Your task to perform on an android device: turn on the 24-hour format for clock Image 0: 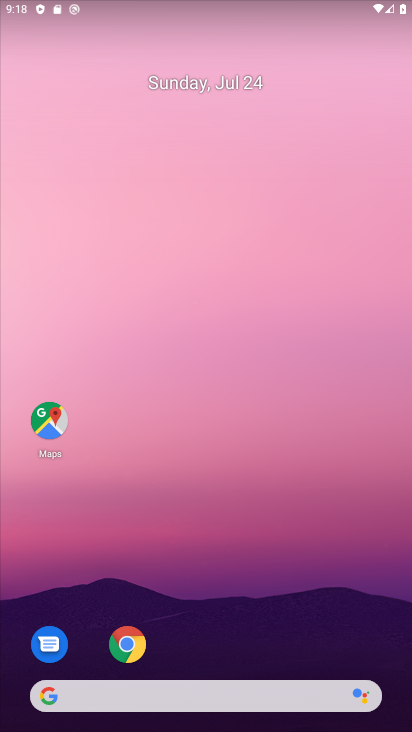
Step 0: drag from (379, 653) to (333, 142)
Your task to perform on an android device: turn on the 24-hour format for clock Image 1: 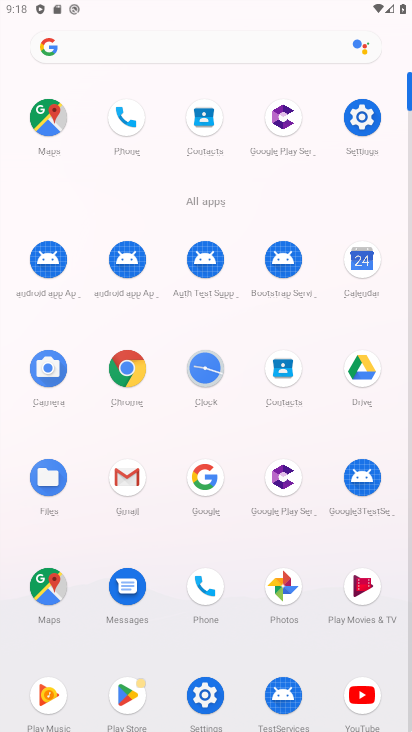
Step 1: click (205, 368)
Your task to perform on an android device: turn on the 24-hour format for clock Image 2: 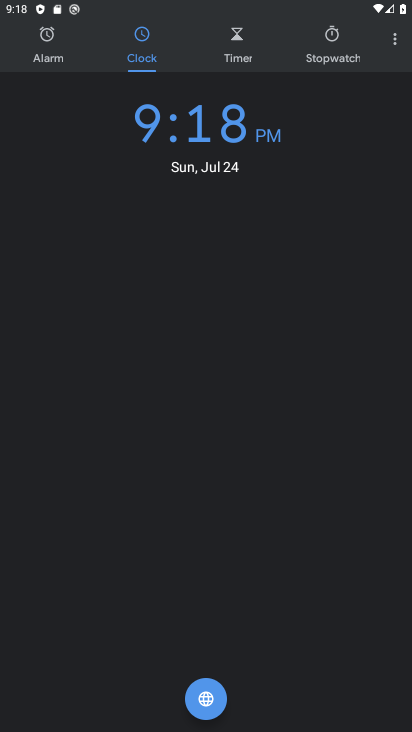
Step 2: click (397, 46)
Your task to perform on an android device: turn on the 24-hour format for clock Image 3: 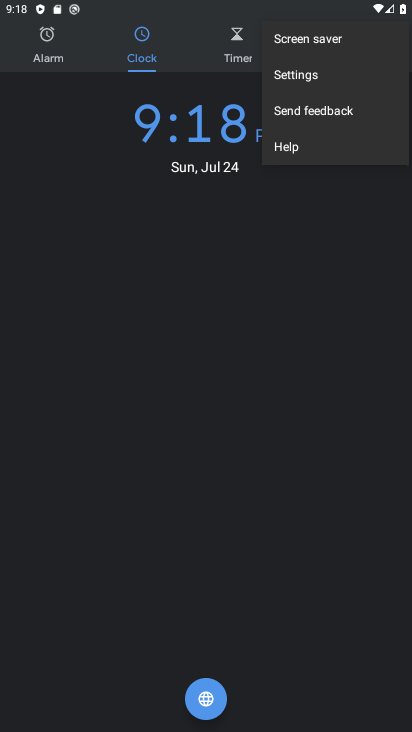
Step 3: click (283, 77)
Your task to perform on an android device: turn on the 24-hour format for clock Image 4: 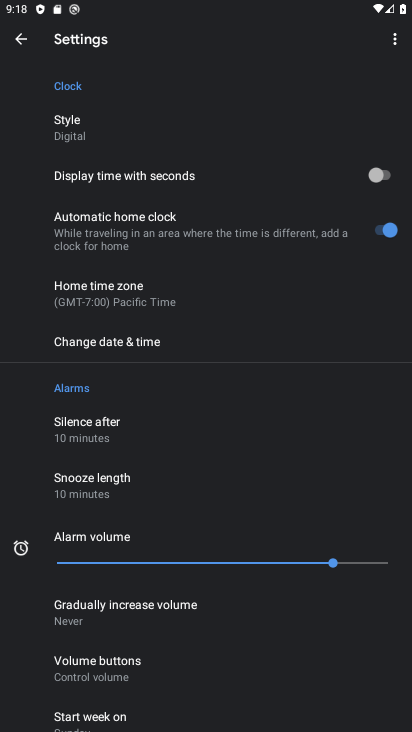
Step 4: click (108, 342)
Your task to perform on an android device: turn on the 24-hour format for clock Image 5: 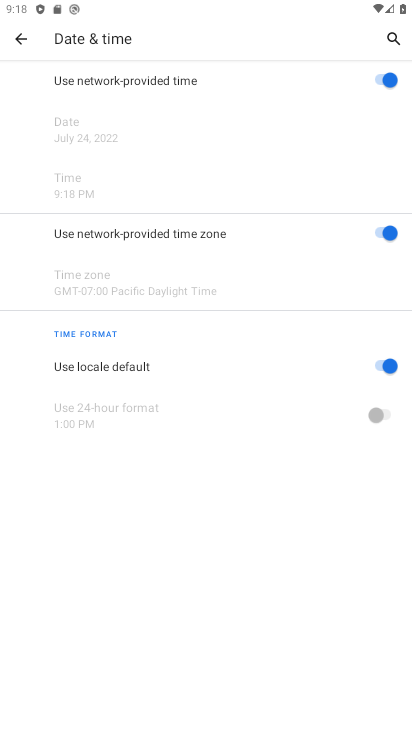
Step 5: click (376, 366)
Your task to perform on an android device: turn on the 24-hour format for clock Image 6: 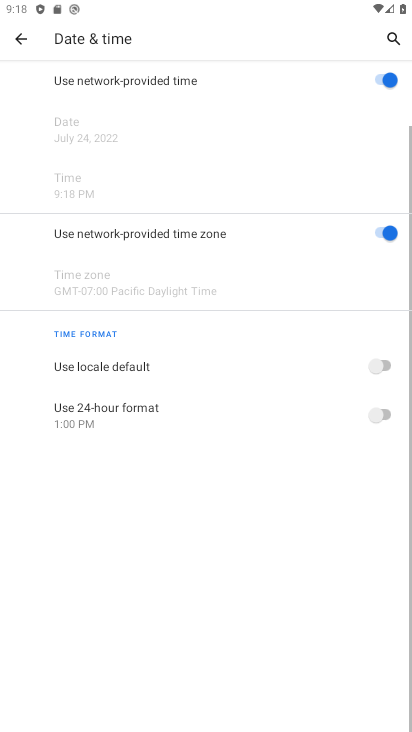
Step 6: click (385, 413)
Your task to perform on an android device: turn on the 24-hour format for clock Image 7: 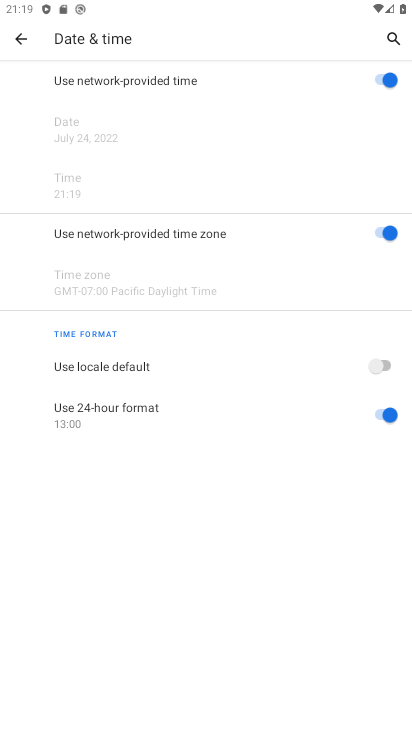
Step 7: task complete